Your task to perform on an android device: check android version Image 0: 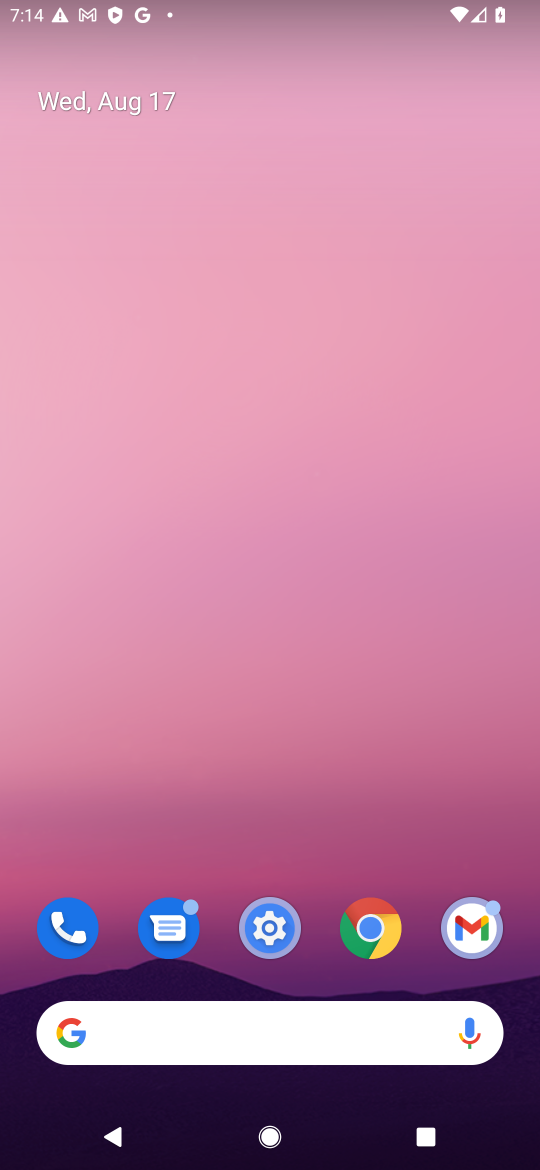
Step 0: click (281, 934)
Your task to perform on an android device: check android version Image 1: 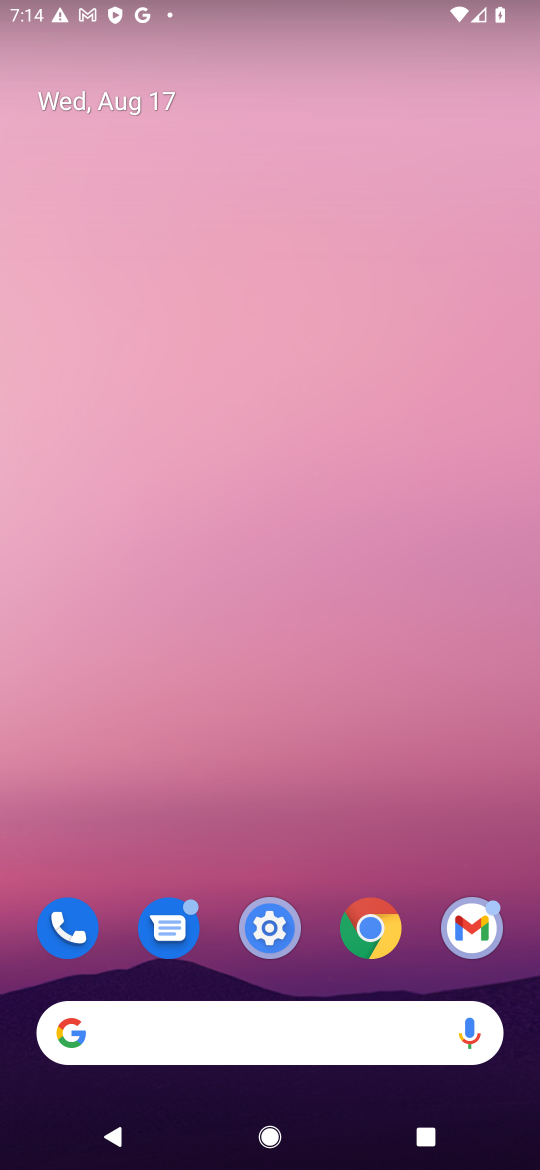
Step 1: click (281, 934)
Your task to perform on an android device: check android version Image 2: 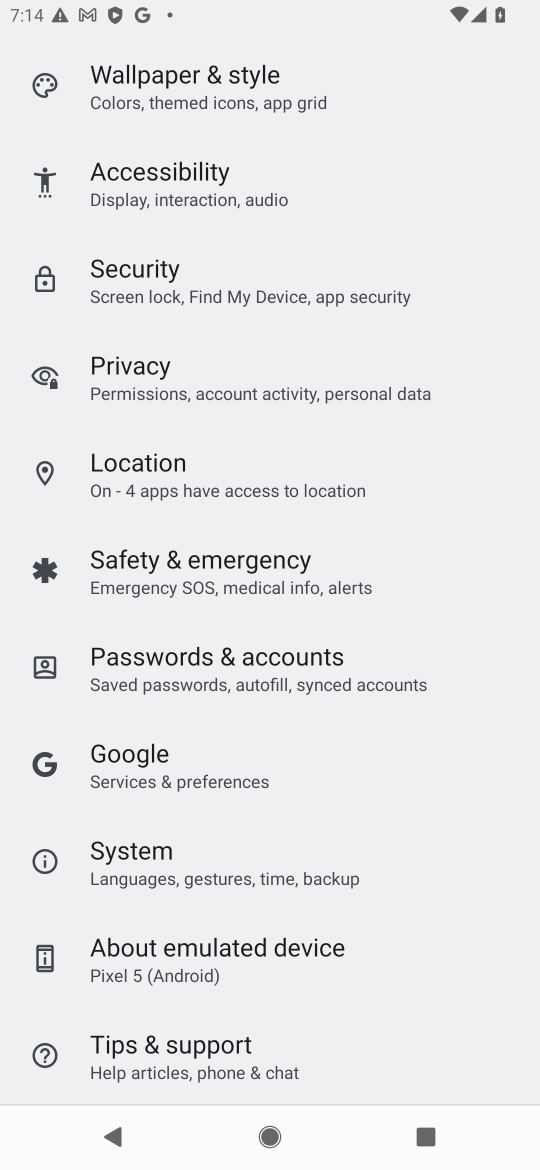
Step 2: click (273, 963)
Your task to perform on an android device: check android version Image 3: 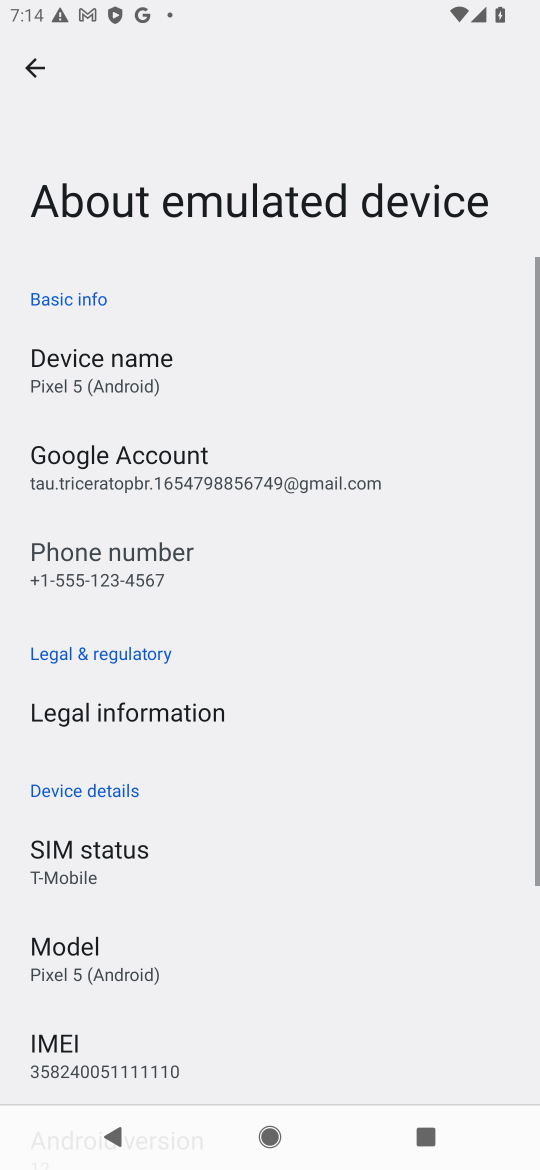
Step 3: drag from (91, 891) to (204, 89)
Your task to perform on an android device: check android version Image 4: 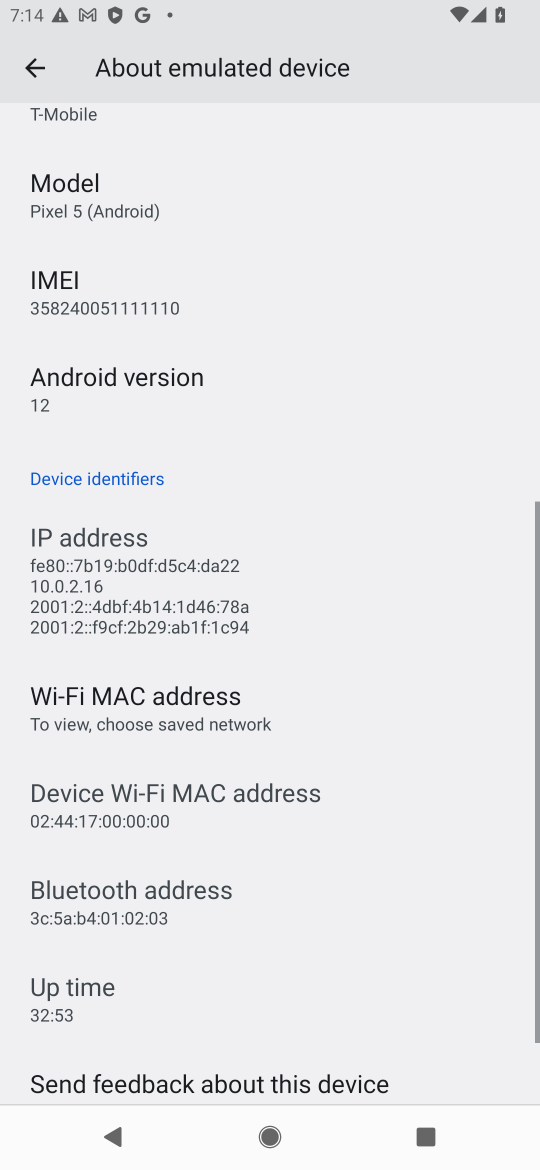
Step 4: click (111, 404)
Your task to perform on an android device: check android version Image 5: 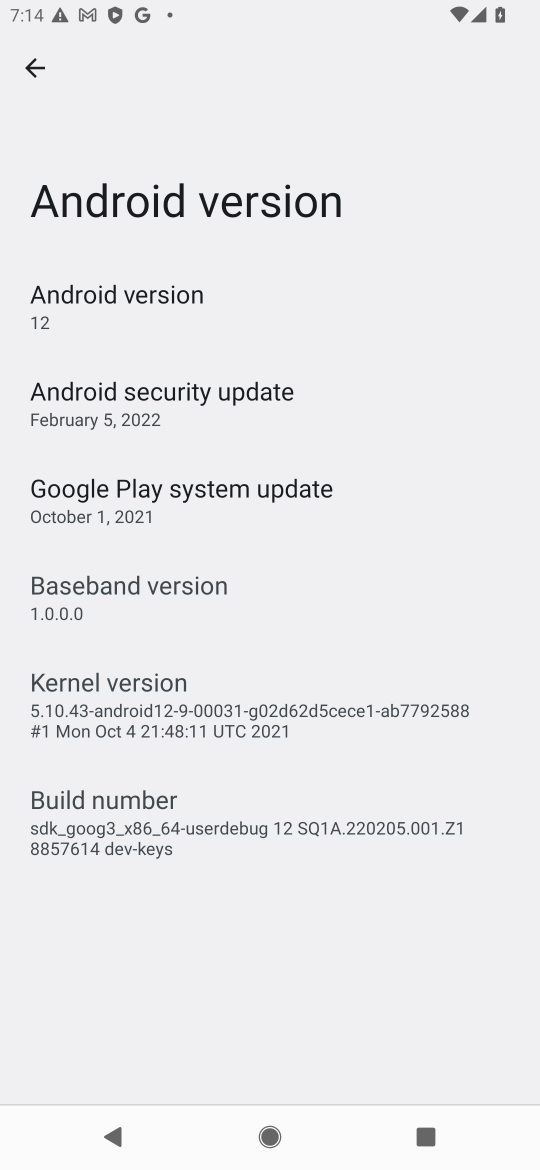
Step 5: click (270, 314)
Your task to perform on an android device: check android version Image 6: 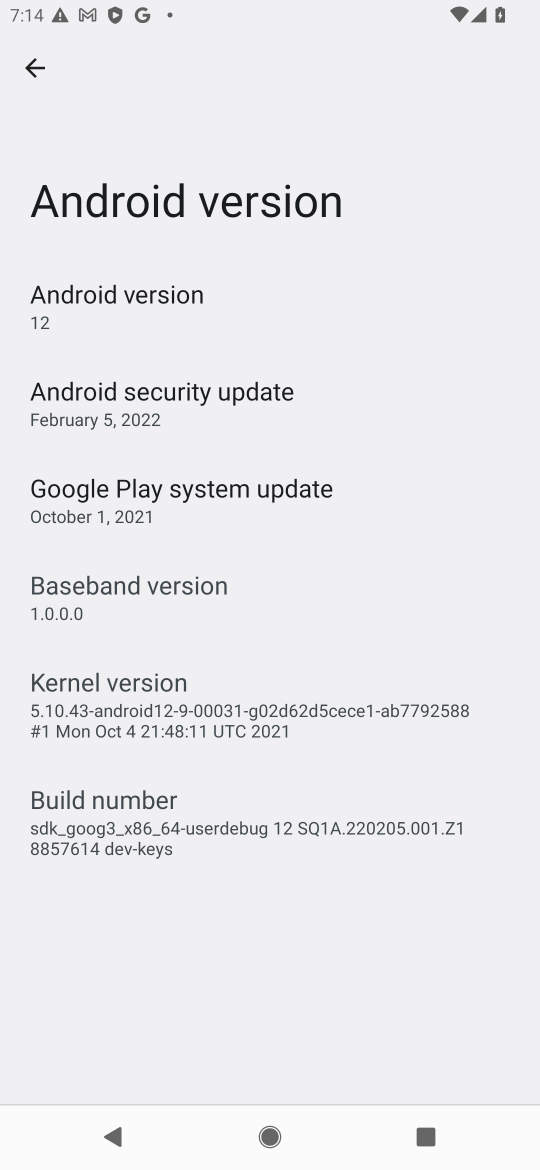
Step 6: task complete